Your task to perform on an android device: open wifi settings Image 0: 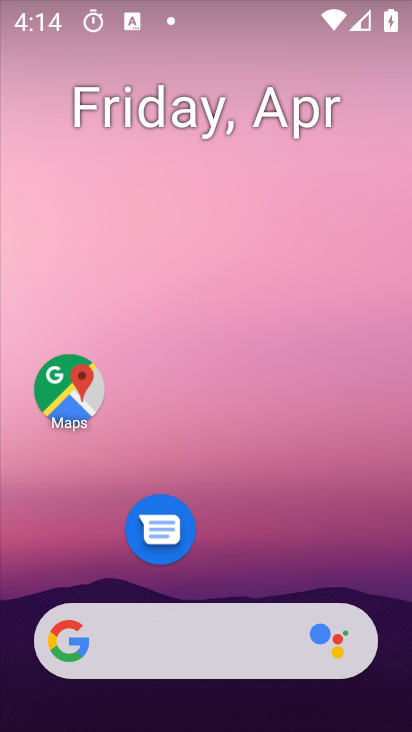
Step 0: drag from (292, 552) to (316, 39)
Your task to perform on an android device: open wifi settings Image 1: 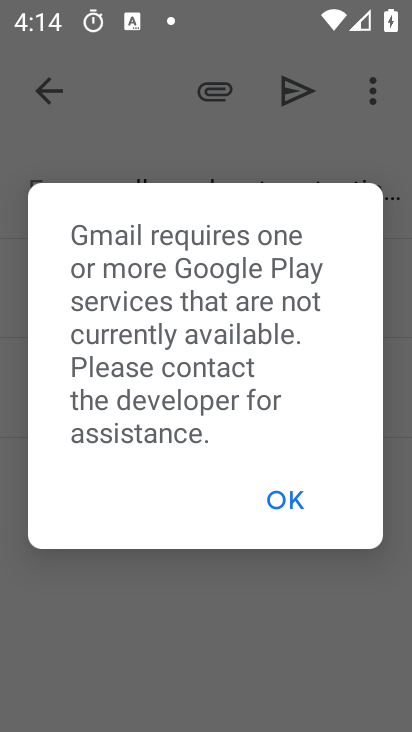
Step 1: click (279, 509)
Your task to perform on an android device: open wifi settings Image 2: 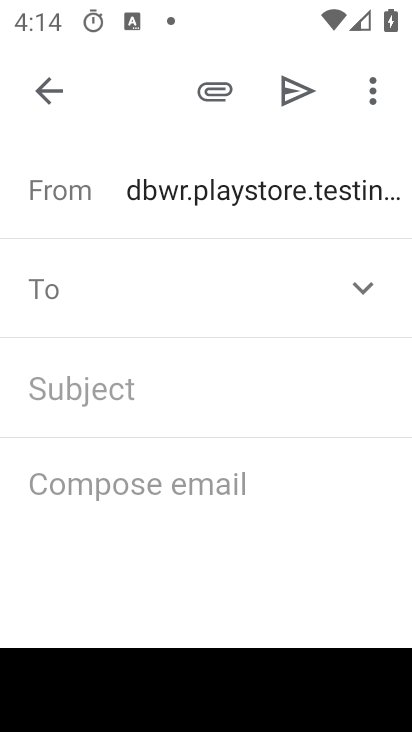
Step 2: press home button
Your task to perform on an android device: open wifi settings Image 3: 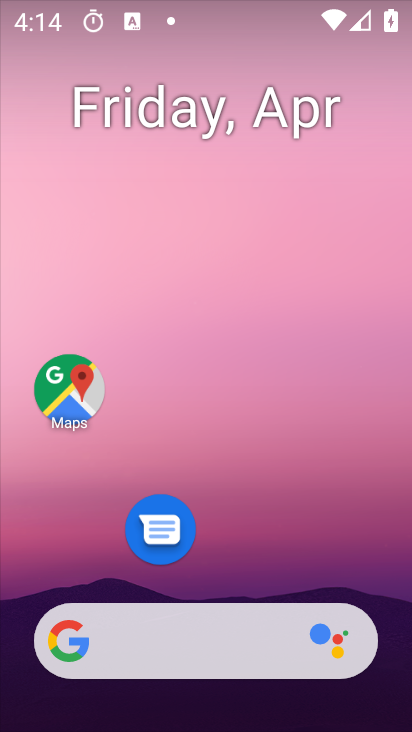
Step 3: drag from (268, 576) to (365, 82)
Your task to perform on an android device: open wifi settings Image 4: 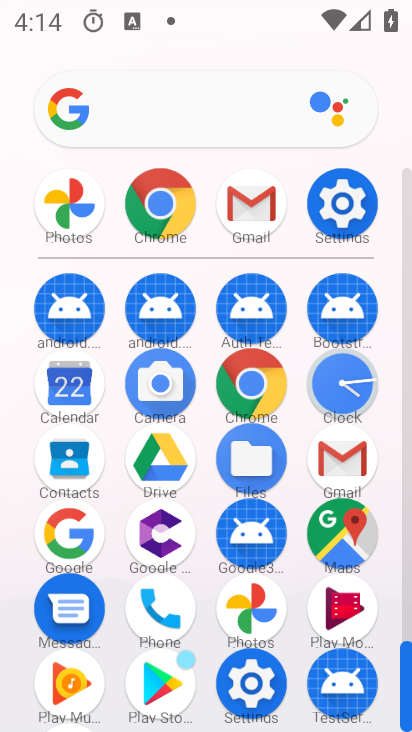
Step 4: click (343, 234)
Your task to perform on an android device: open wifi settings Image 5: 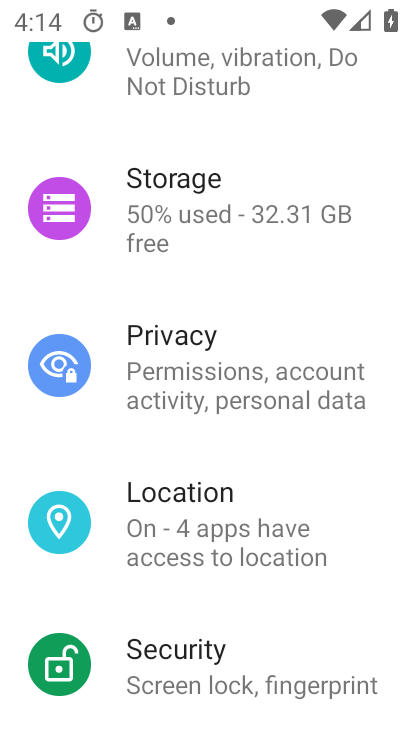
Step 5: drag from (263, 344) to (201, 614)
Your task to perform on an android device: open wifi settings Image 6: 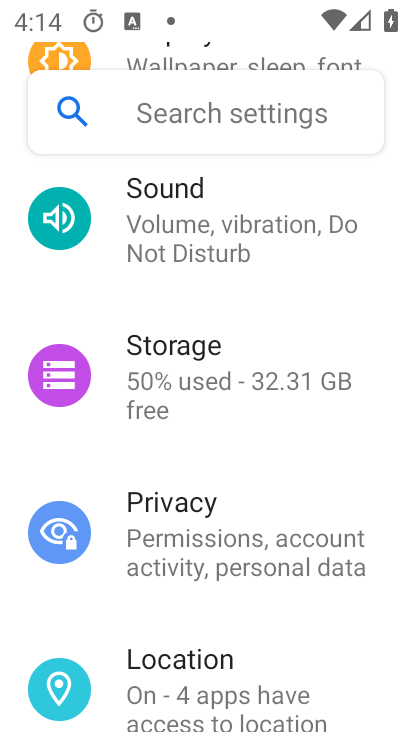
Step 6: drag from (236, 341) to (214, 607)
Your task to perform on an android device: open wifi settings Image 7: 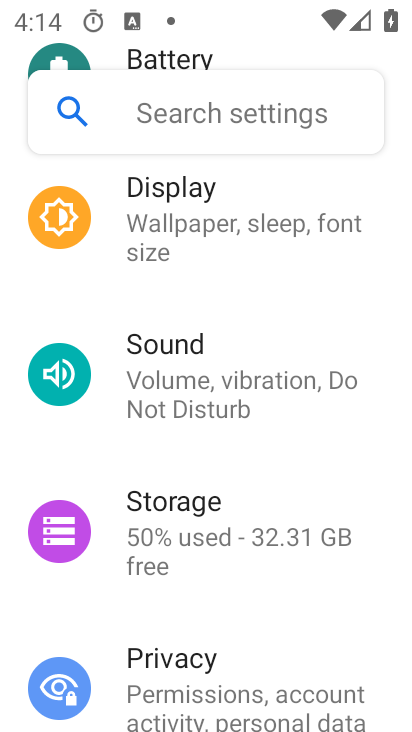
Step 7: drag from (270, 344) to (245, 664)
Your task to perform on an android device: open wifi settings Image 8: 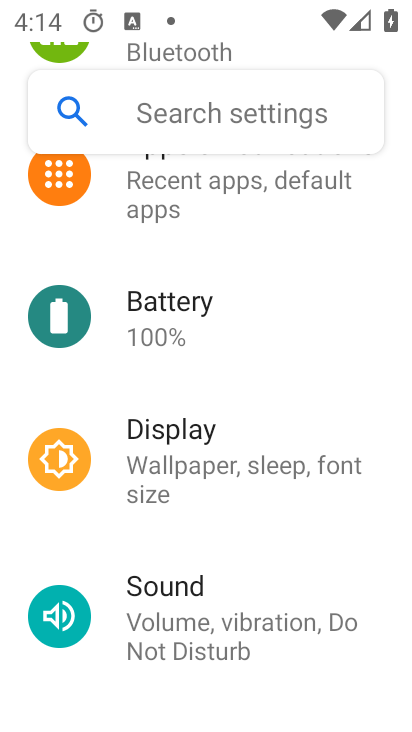
Step 8: drag from (272, 424) to (254, 691)
Your task to perform on an android device: open wifi settings Image 9: 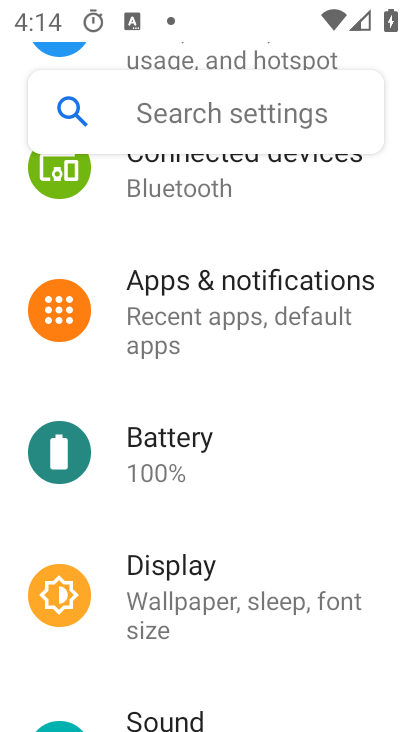
Step 9: drag from (269, 355) to (247, 730)
Your task to perform on an android device: open wifi settings Image 10: 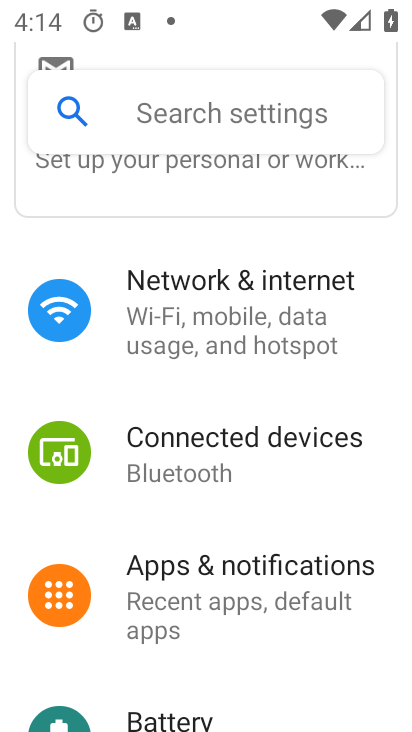
Step 10: click (285, 307)
Your task to perform on an android device: open wifi settings Image 11: 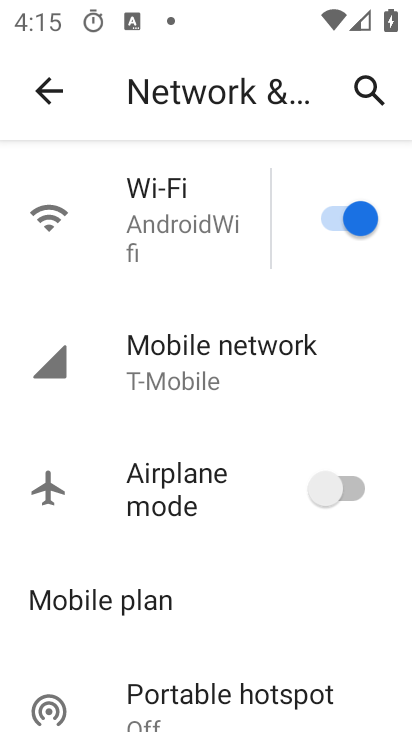
Step 11: click (203, 226)
Your task to perform on an android device: open wifi settings Image 12: 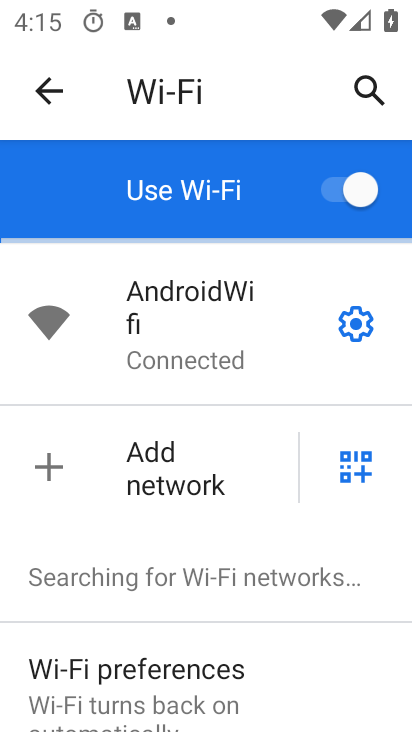
Step 12: task complete